Your task to perform on an android device: change the clock display to digital Image 0: 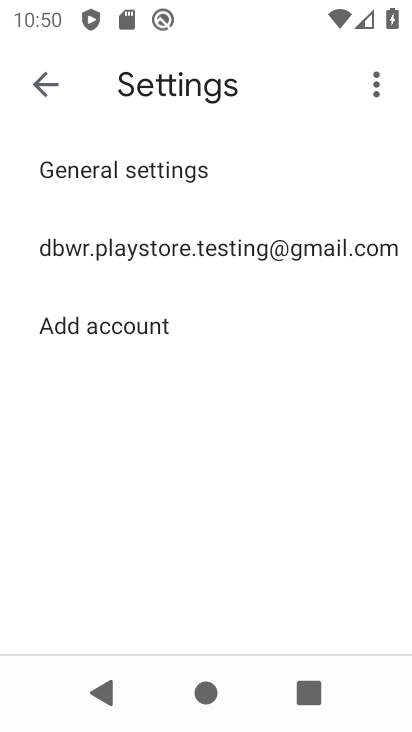
Step 0: press home button
Your task to perform on an android device: change the clock display to digital Image 1: 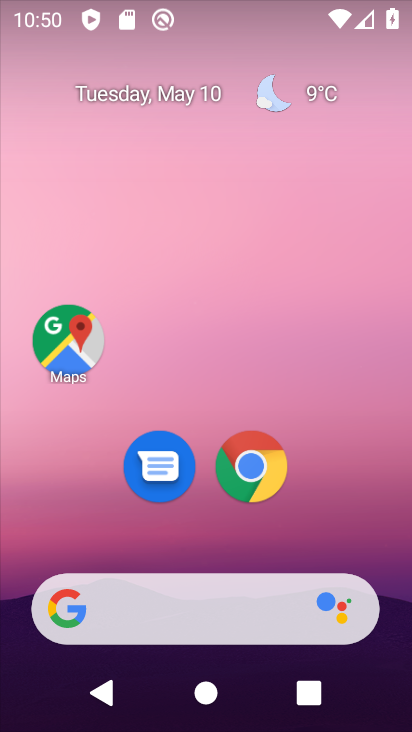
Step 1: drag from (241, 548) to (225, 34)
Your task to perform on an android device: change the clock display to digital Image 2: 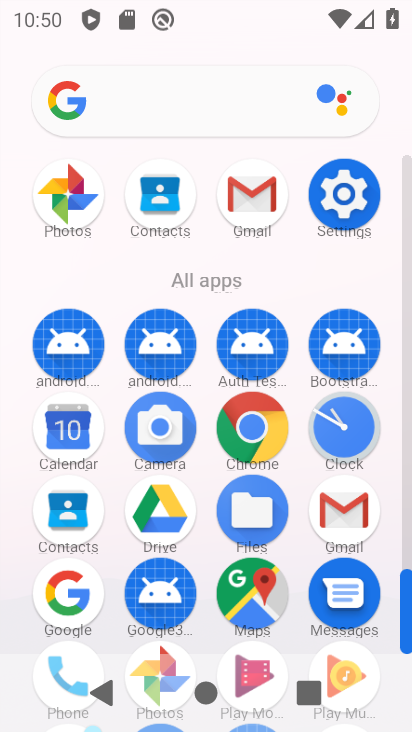
Step 2: click (357, 416)
Your task to perform on an android device: change the clock display to digital Image 3: 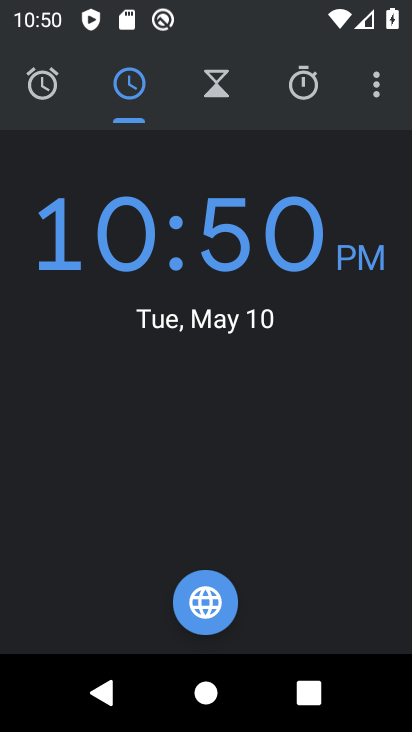
Step 3: click (376, 83)
Your task to perform on an android device: change the clock display to digital Image 4: 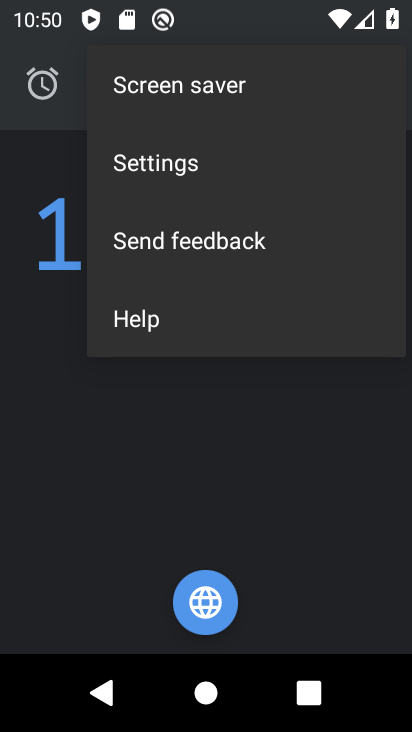
Step 4: click (302, 155)
Your task to perform on an android device: change the clock display to digital Image 5: 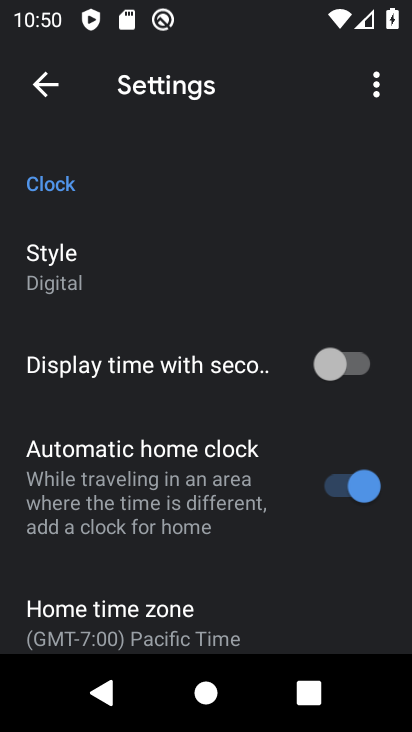
Step 5: click (157, 280)
Your task to perform on an android device: change the clock display to digital Image 6: 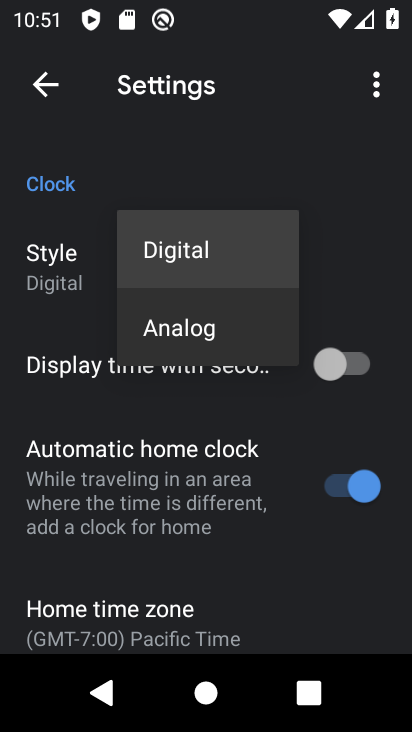
Step 6: click (220, 230)
Your task to perform on an android device: change the clock display to digital Image 7: 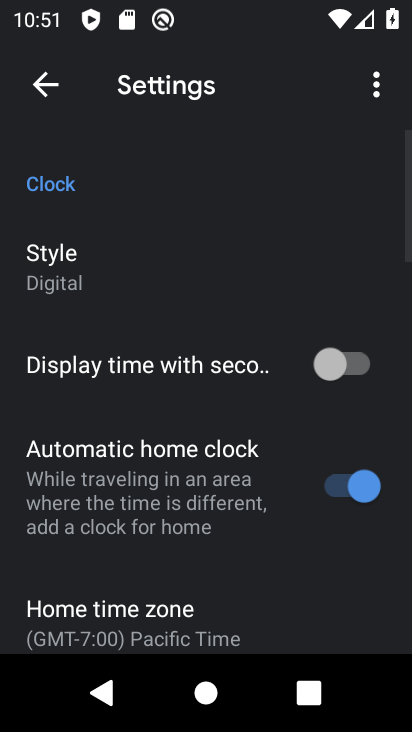
Step 7: task complete